Your task to perform on an android device: turn smart compose on in the gmail app Image 0: 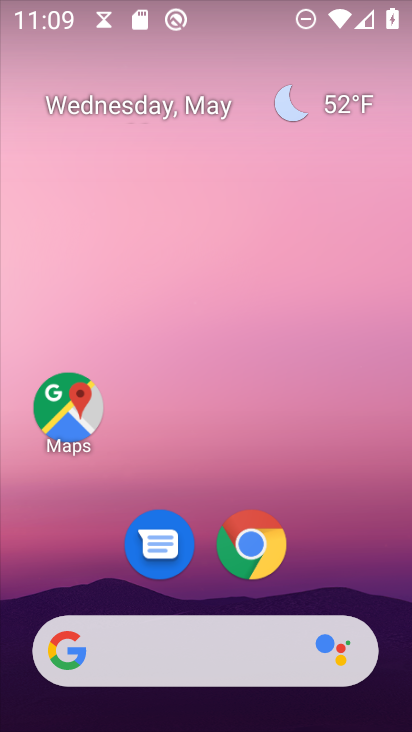
Step 0: drag from (204, 569) to (287, 35)
Your task to perform on an android device: turn smart compose on in the gmail app Image 1: 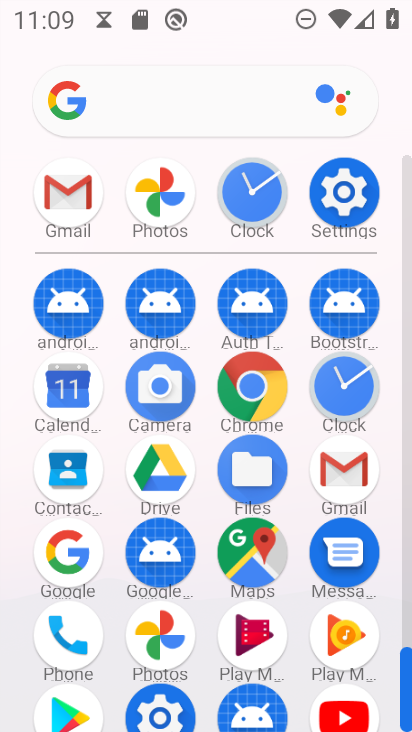
Step 1: click (64, 196)
Your task to perform on an android device: turn smart compose on in the gmail app Image 2: 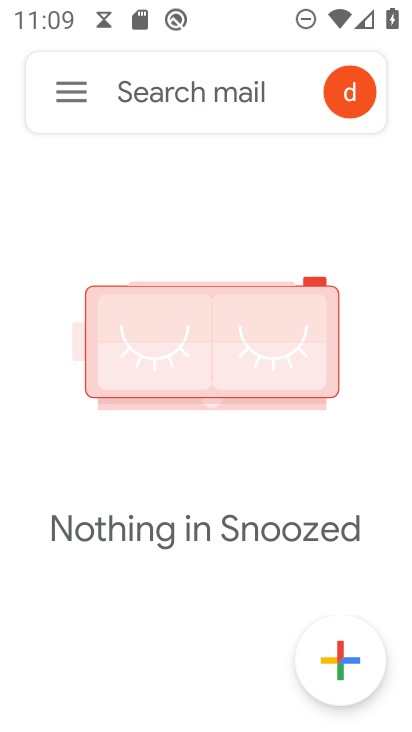
Step 2: click (73, 75)
Your task to perform on an android device: turn smart compose on in the gmail app Image 3: 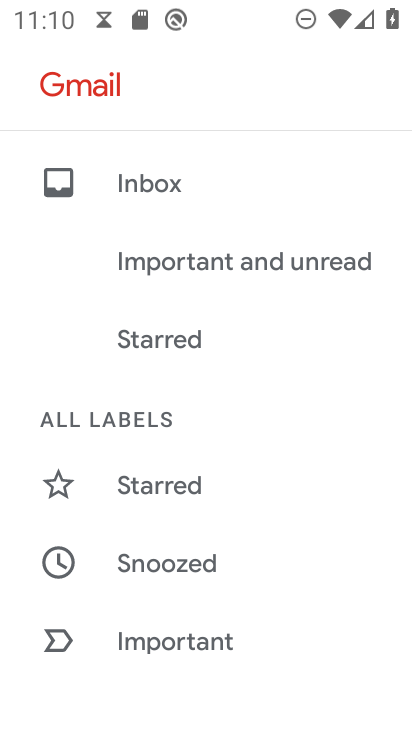
Step 3: drag from (128, 575) to (223, 226)
Your task to perform on an android device: turn smart compose on in the gmail app Image 4: 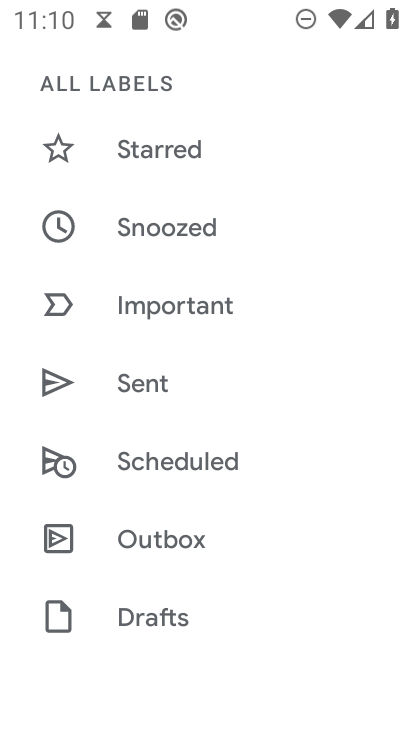
Step 4: drag from (171, 595) to (251, 150)
Your task to perform on an android device: turn smart compose on in the gmail app Image 5: 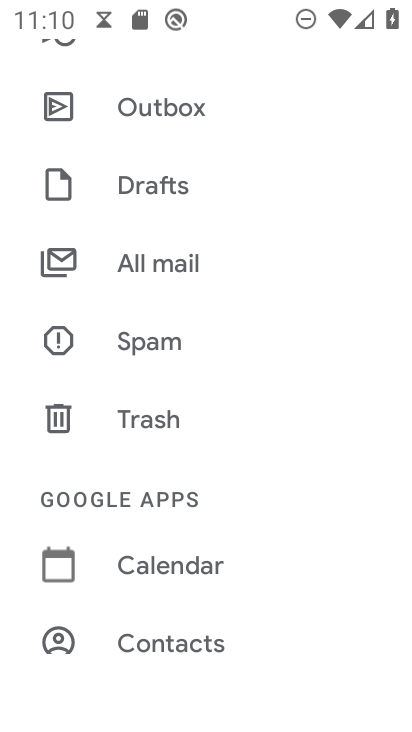
Step 5: drag from (145, 572) to (232, 100)
Your task to perform on an android device: turn smart compose on in the gmail app Image 6: 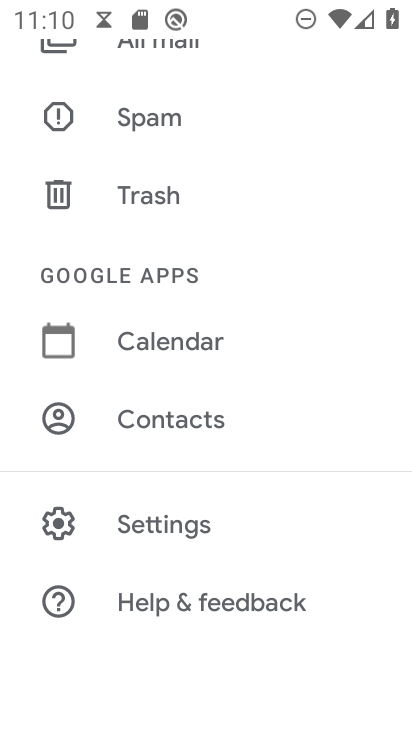
Step 6: click (129, 521)
Your task to perform on an android device: turn smart compose on in the gmail app Image 7: 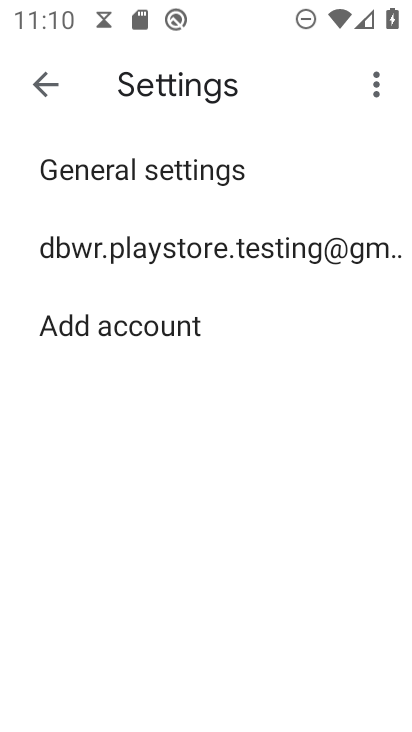
Step 7: click (278, 278)
Your task to perform on an android device: turn smart compose on in the gmail app Image 8: 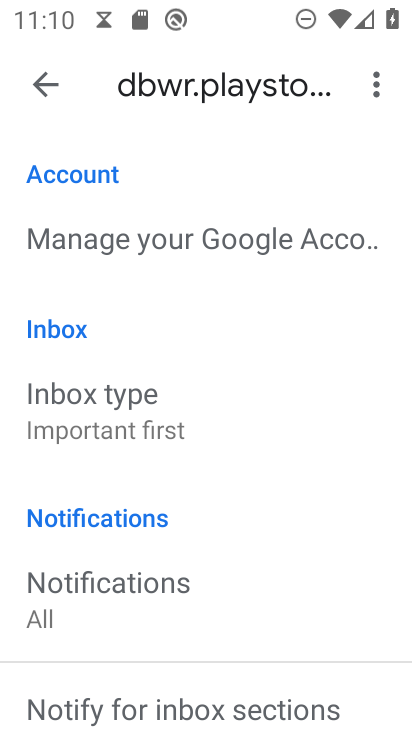
Step 8: drag from (141, 658) to (218, 353)
Your task to perform on an android device: turn smart compose on in the gmail app Image 9: 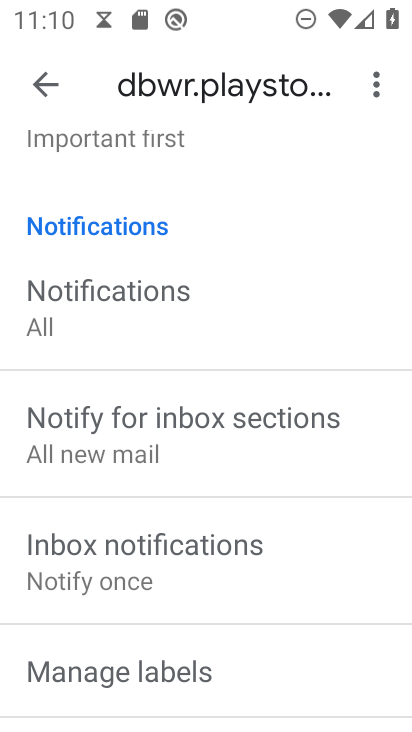
Step 9: click (124, 553)
Your task to perform on an android device: turn smart compose on in the gmail app Image 10: 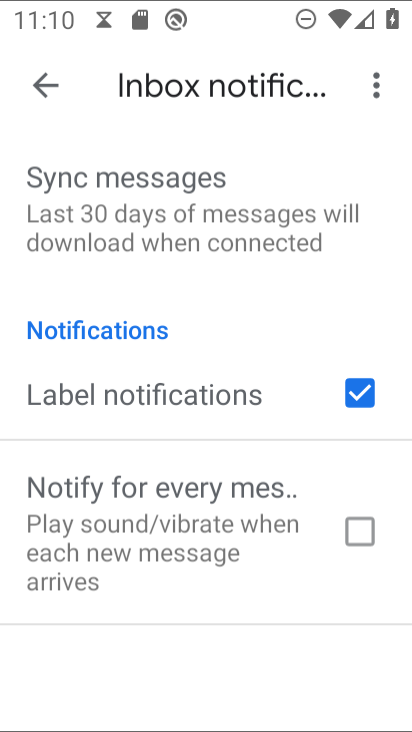
Step 10: drag from (225, 153) to (206, 652)
Your task to perform on an android device: turn smart compose on in the gmail app Image 11: 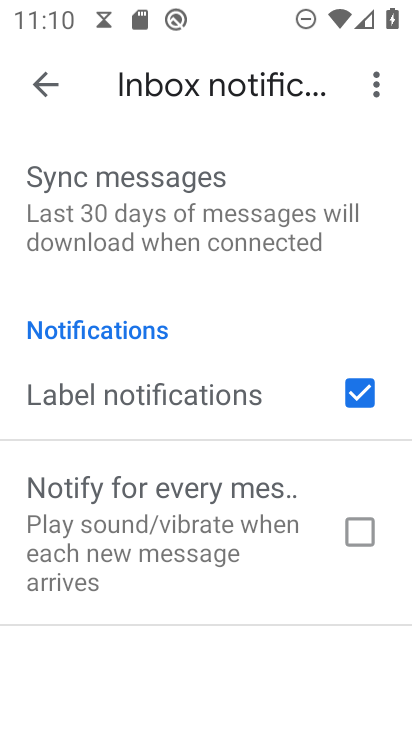
Step 11: click (77, 86)
Your task to perform on an android device: turn smart compose on in the gmail app Image 12: 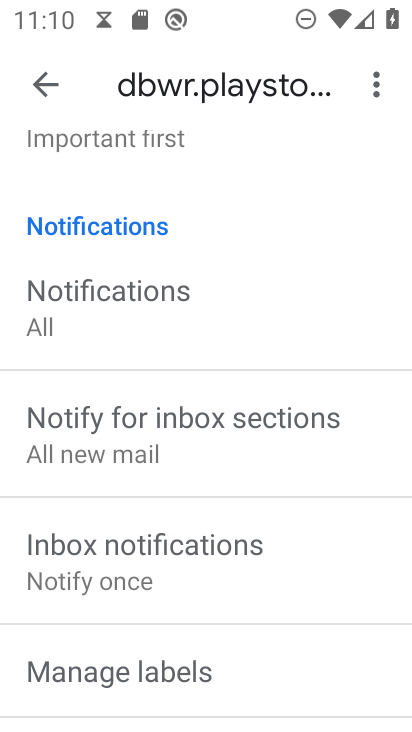
Step 12: task complete